Your task to perform on an android device: toggle data saver in the chrome app Image 0: 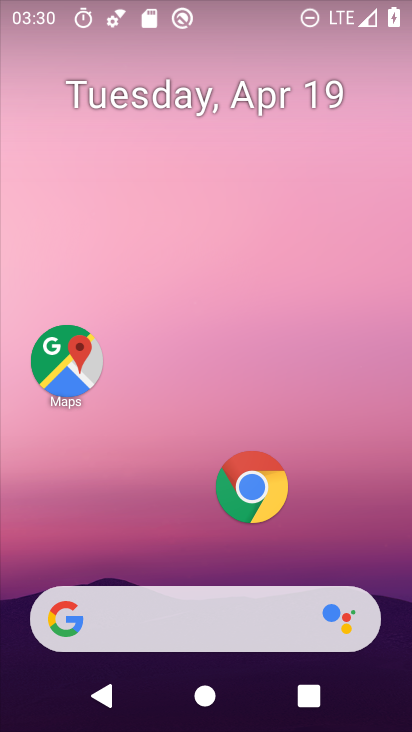
Step 0: click (249, 18)
Your task to perform on an android device: toggle data saver in the chrome app Image 1: 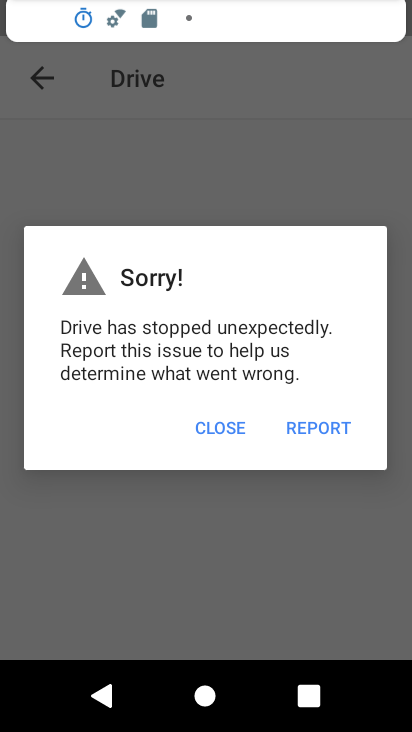
Step 1: drag from (208, 336) to (248, 38)
Your task to perform on an android device: toggle data saver in the chrome app Image 2: 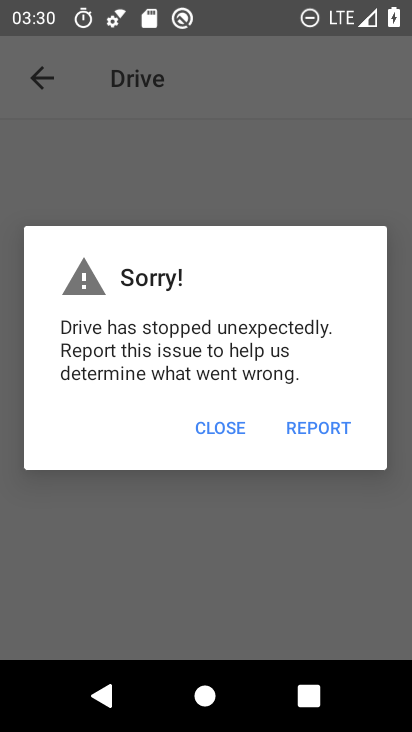
Step 2: press home button
Your task to perform on an android device: toggle data saver in the chrome app Image 3: 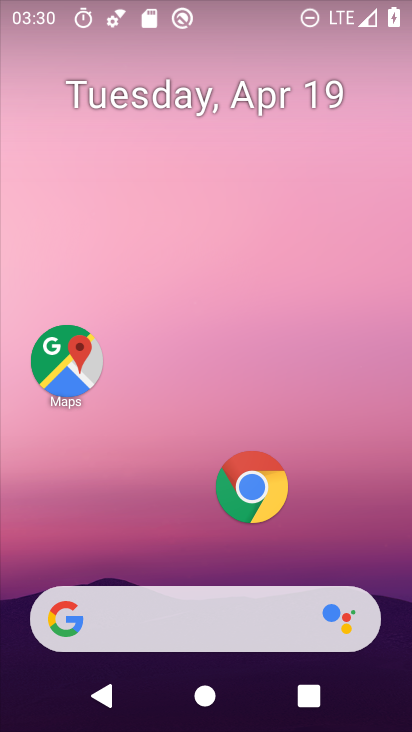
Step 3: click (260, 510)
Your task to perform on an android device: toggle data saver in the chrome app Image 4: 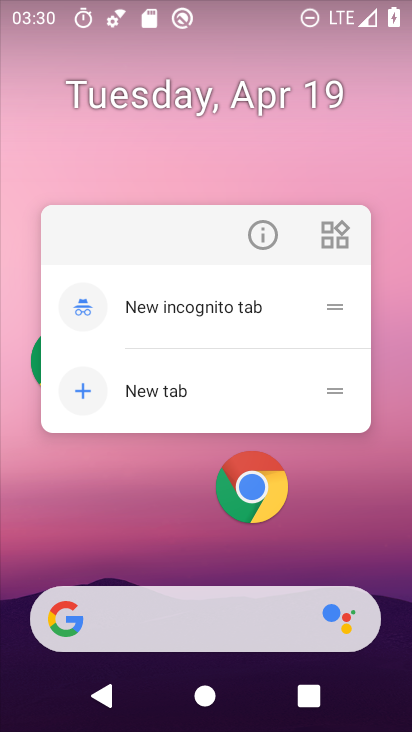
Step 4: click (241, 486)
Your task to perform on an android device: toggle data saver in the chrome app Image 5: 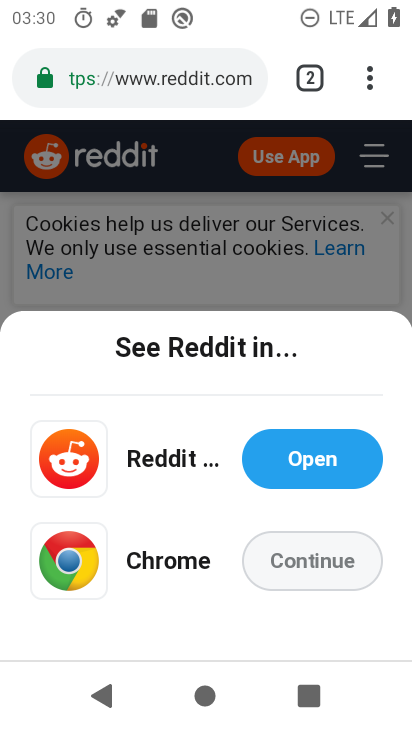
Step 5: drag from (375, 82) to (107, 546)
Your task to perform on an android device: toggle data saver in the chrome app Image 6: 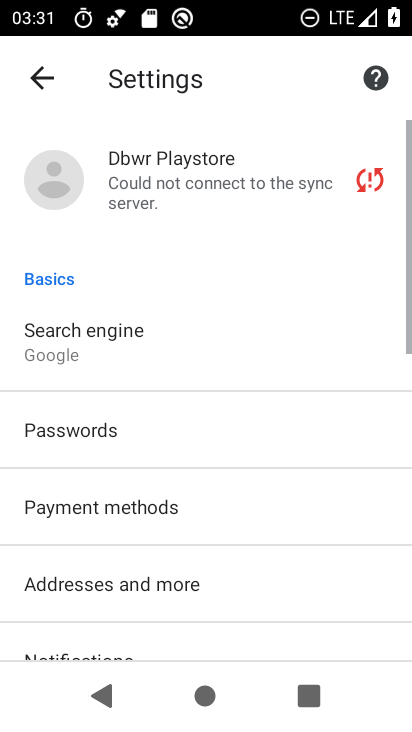
Step 6: drag from (113, 576) to (213, 28)
Your task to perform on an android device: toggle data saver in the chrome app Image 7: 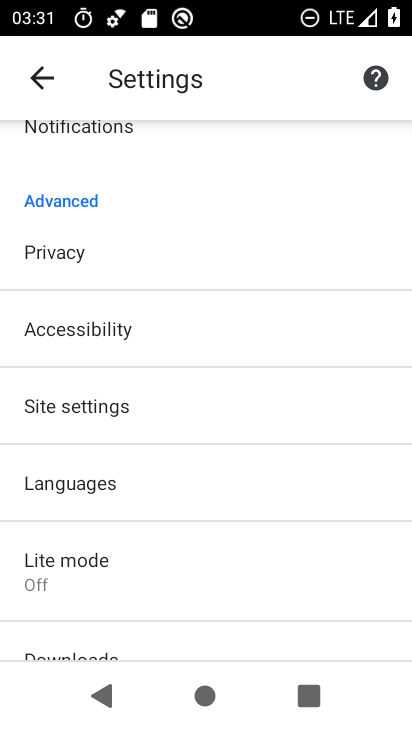
Step 7: click (76, 573)
Your task to perform on an android device: toggle data saver in the chrome app Image 8: 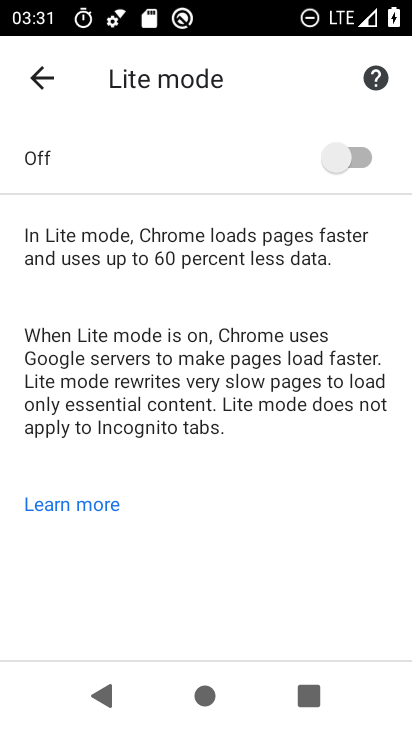
Step 8: click (346, 166)
Your task to perform on an android device: toggle data saver in the chrome app Image 9: 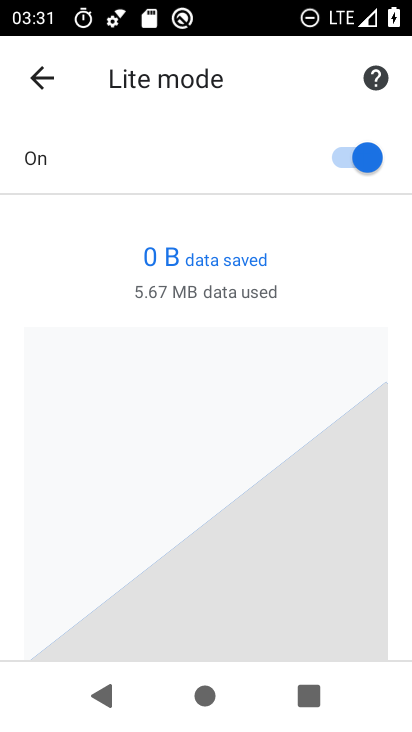
Step 9: task complete